Your task to perform on an android device: check the backup settings in the google photos Image 0: 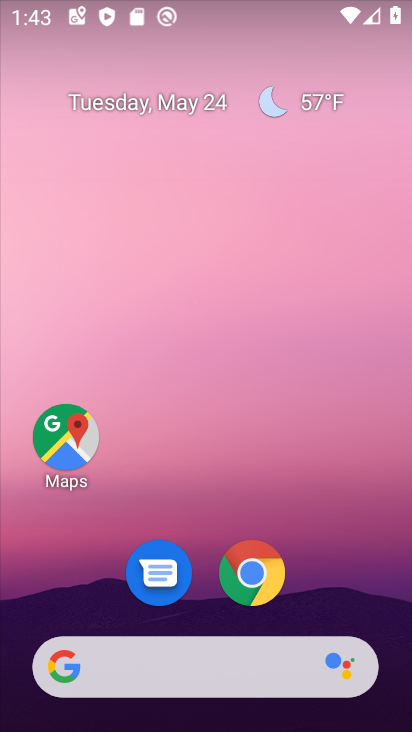
Step 0: drag from (345, 573) to (351, 172)
Your task to perform on an android device: check the backup settings in the google photos Image 1: 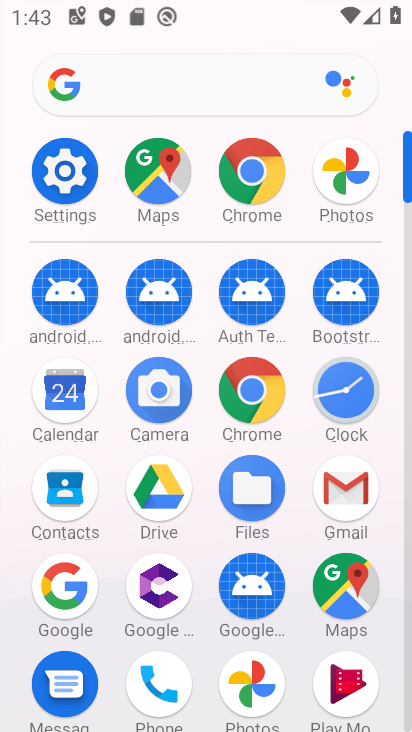
Step 1: click (240, 674)
Your task to perform on an android device: check the backup settings in the google photos Image 2: 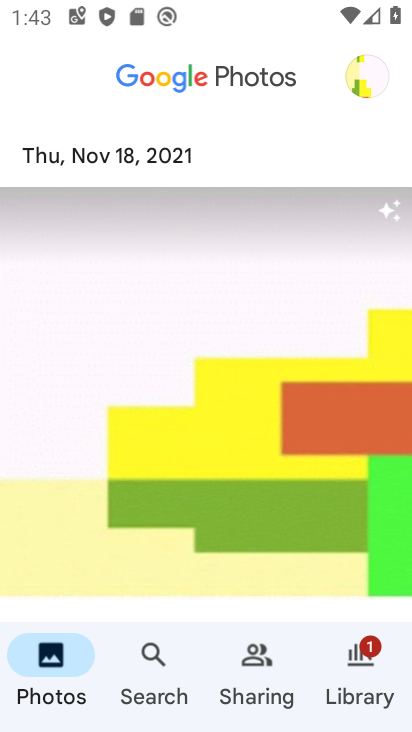
Step 2: click (409, 77)
Your task to perform on an android device: check the backup settings in the google photos Image 3: 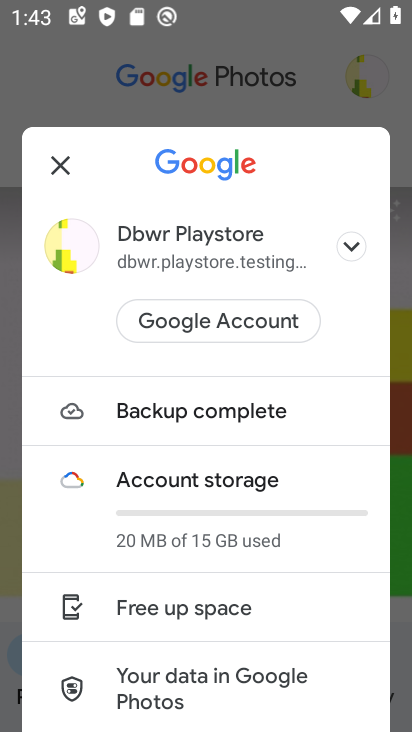
Step 3: drag from (295, 598) to (287, 224)
Your task to perform on an android device: check the backup settings in the google photos Image 4: 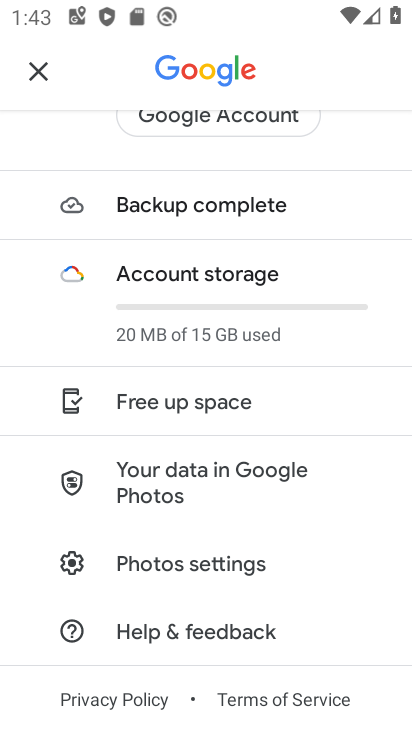
Step 4: click (227, 563)
Your task to perform on an android device: check the backup settings in the google photos Image 5: 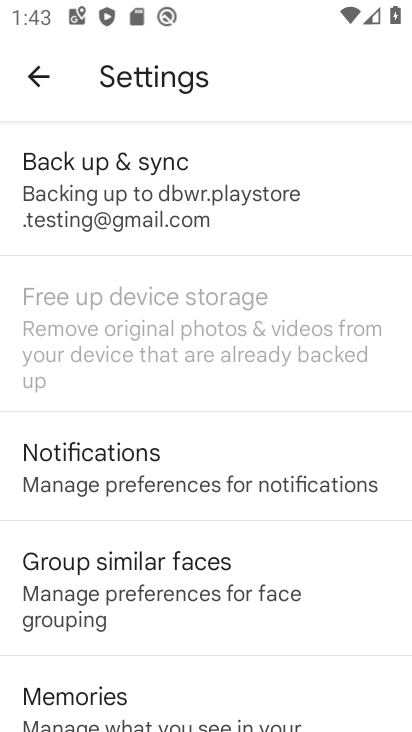
Step 5: click (121, 152)
Your task to perform on an android device: check the backup settings in the google photos Image 6: 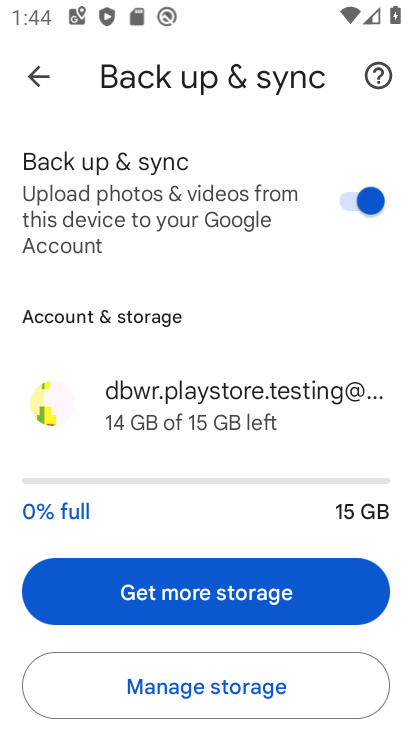
Step 6: task complete